Your task to perform on an android device: Search for asus rog on walmart, select the first entry, add it to the cart, then select checkout. Image 0: 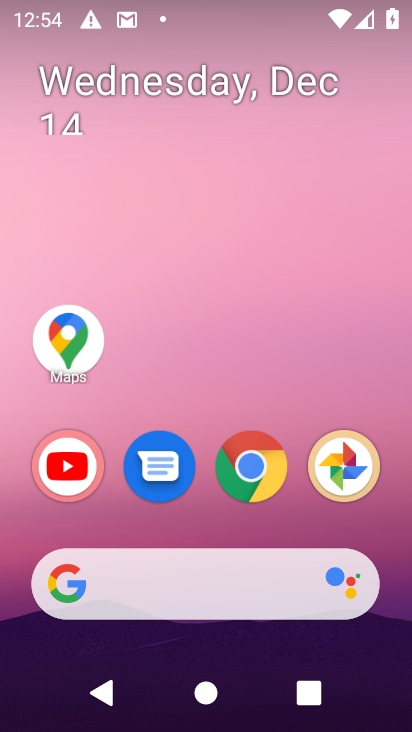
Step 0: click (144, 569)
Your task to perform on an android device: Search for asus rog on walmart, select the first entry, add it to the cart, then select checkout. Image 1: 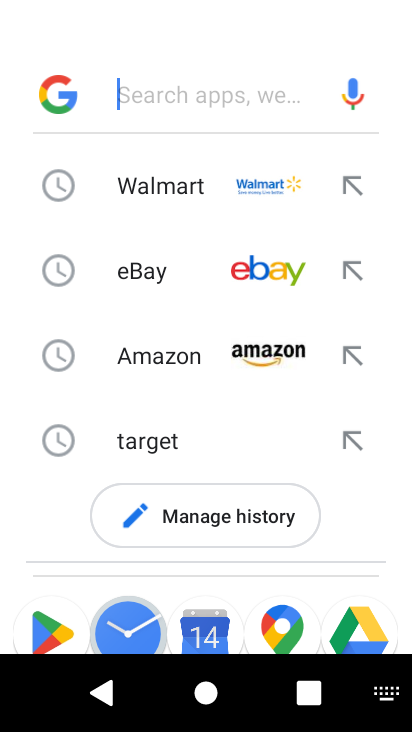
Step 1: click (168, 187)
Your task to perform on an android device: Search for asus rog on walmart, select the first entry, add it to the cart, then select checkout. Image 2: 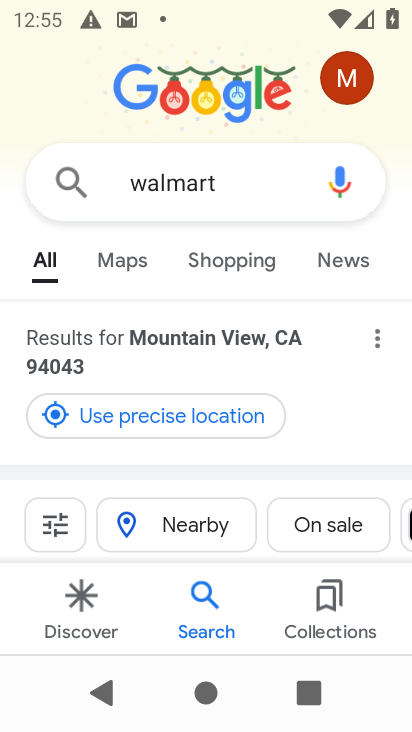
Step 2: drag from (146, 335) to (165, 142)
Your task to perform on an android device: Search for asus rog on walmart, select the first entry, add it to the cart, then select checkout. Image 3: 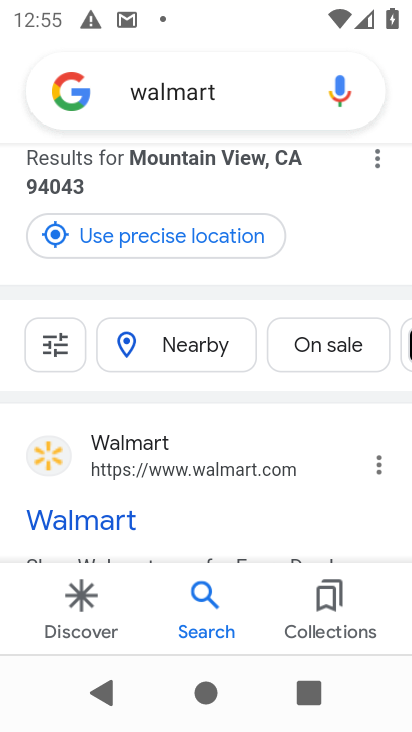
Step 3: click (171, 469)
Your task to perform on an android device: Search for asus rog on walmart, select the first entry, add it to the cart, then select checkout. Image 4: 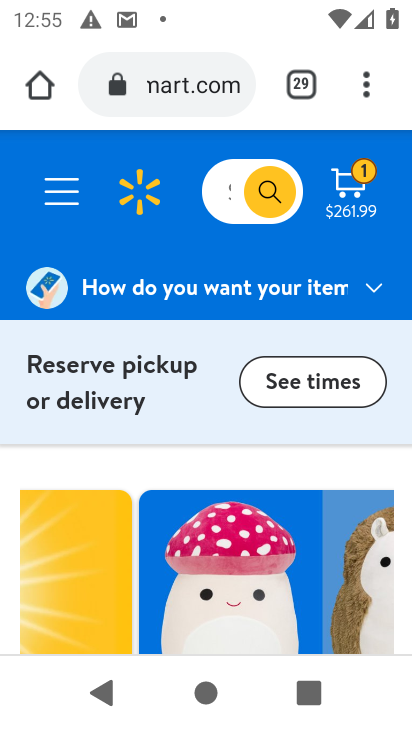
Step 4: click (230, 185)
Your task to perform on an android device: Search for asus rog on walmart, select the first entry, add it to the cart, then select checkout. Image 5: 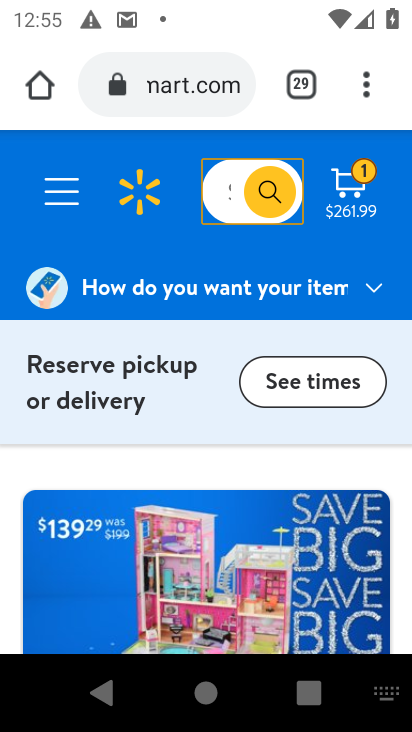
Step 5: type "asus rog"
Your task to perform on an android device: Search for asus rog on walmart, select the first entry, add it to the cart, then select checkout. Image 6: 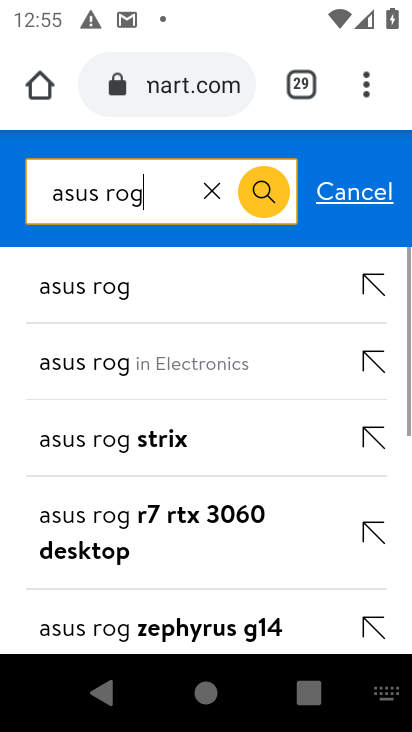
Step 6: click (261, 188)
Your task to perform on an android device: Search for asus rog on walmart, select the first entry, add it to the cart, then select checkout. Image 7: 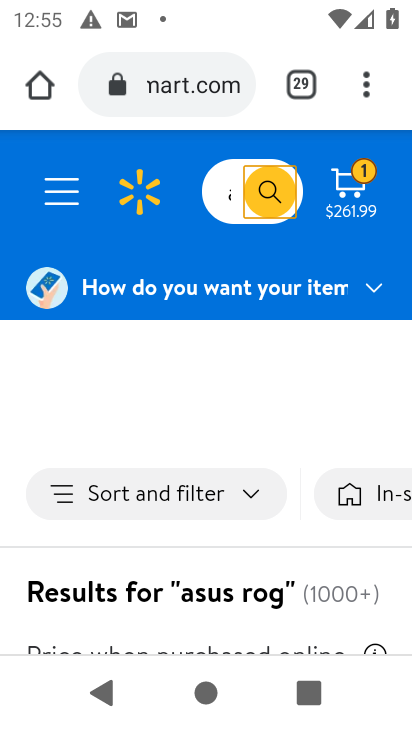
Step 7: drag from (272, 546) to (280, 353)
Your task to perform on an android device: Search for asus rog on walmart, select the first entry, add it to the cart, then select checkout. Image 8: 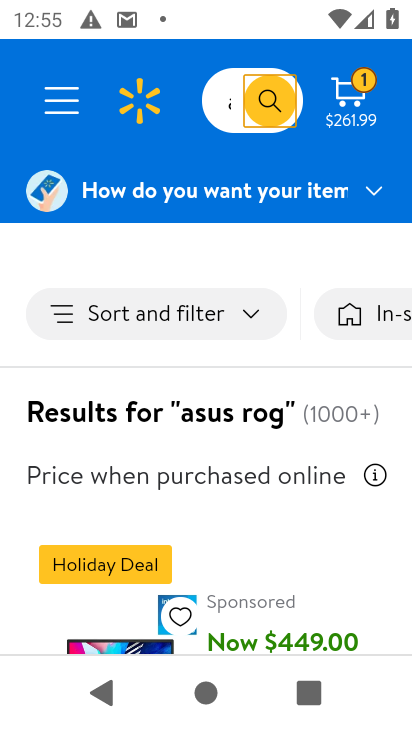
Step 8: drag from (226, 564) to (222, 356)
Your task to perform on an android device: Search for asus rog on walmart, select the first entry, add it to the cart, then select checkout. Image 9: 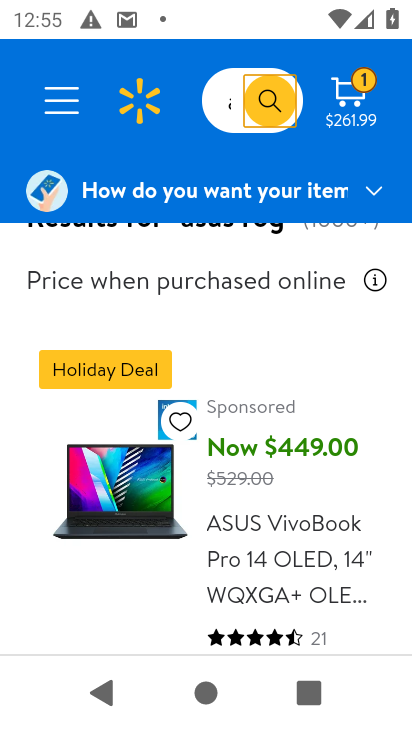
Step 9: drag from (112, 596) to (108, 333)
Your task to perform on an android device: Search for asus rog on walmart, select the first entry, add it to the cart, then select checkout. Image 10: 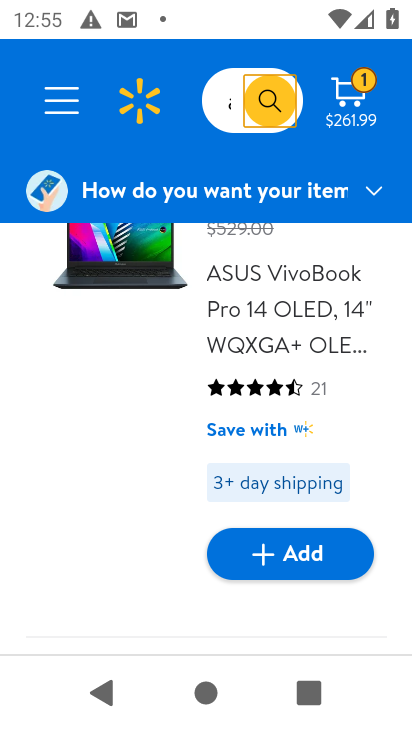
Step 10: click (267, 547)
Your task to perform on an android device: Search for asus rog on walmart, select the first entry, add it to the cart, then select checkout. Image 11: 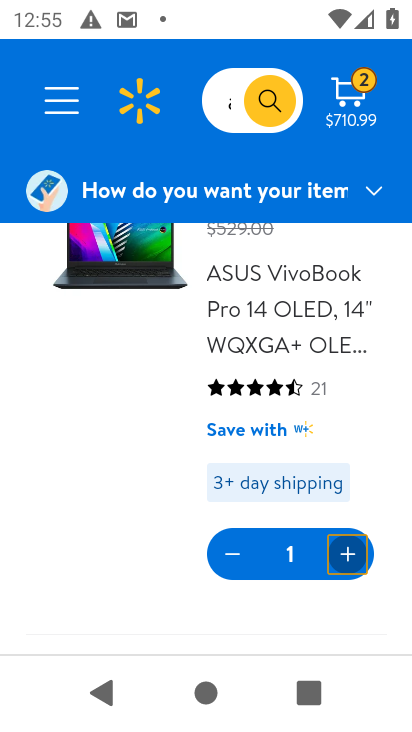
Step 11: click (362, 81)
Your task to perform on an android device: Search for asus rog on walmart, select the first entry, add it to the cart, then select checkout. Image 12: 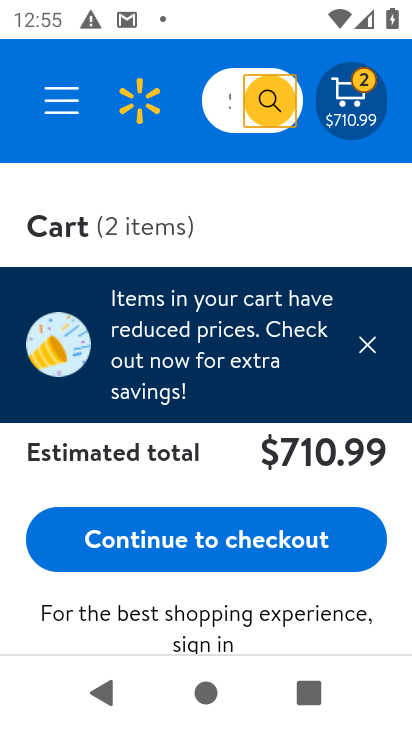
Step 12: click (180, 502)
Your task to perform on an android device: Search for asus rog on walmart, select the first entry, add it to the cart, then select checkout. Image 13: 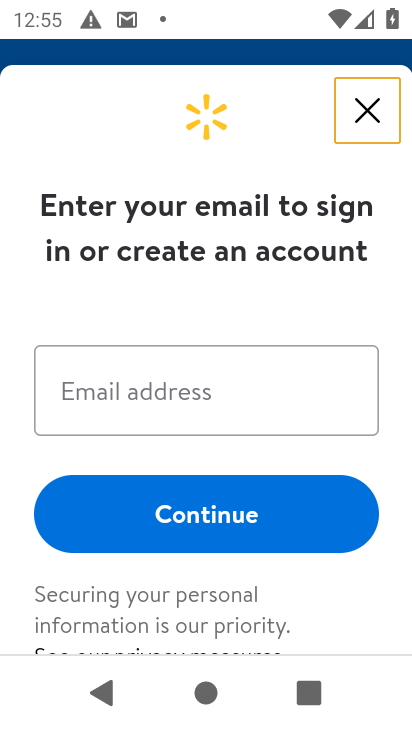
Step 13: task complete